Your task to perform on an android device: Open ESPN.com Image 0: 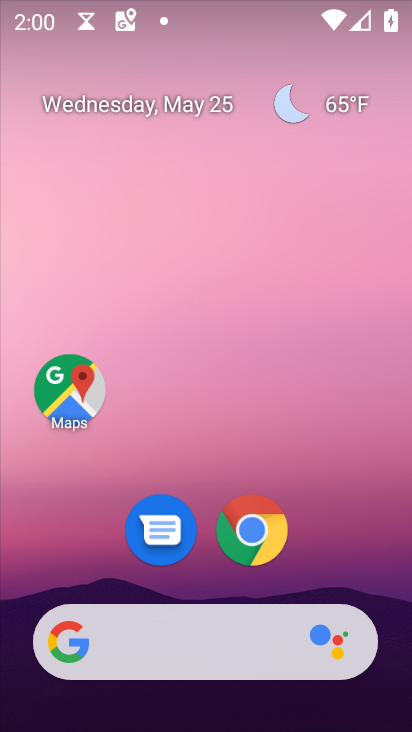
Step 0: click (242, 522)
Your task to perform on an android device: Open ESPN.com Image 1: 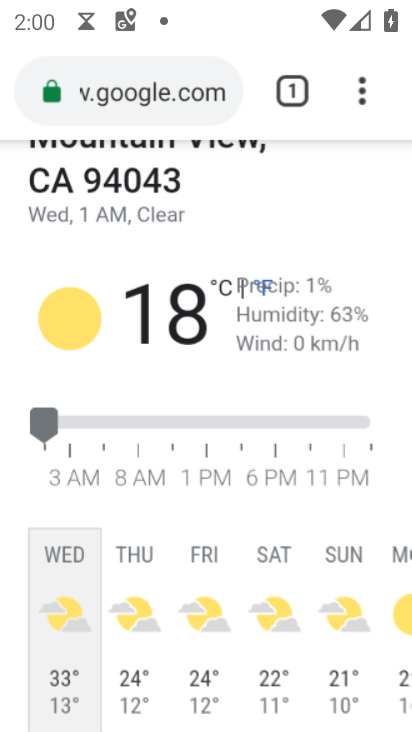
Step 1: click (383, 84)
Your task to perform on an android device: Open ESPN.com Image 2: 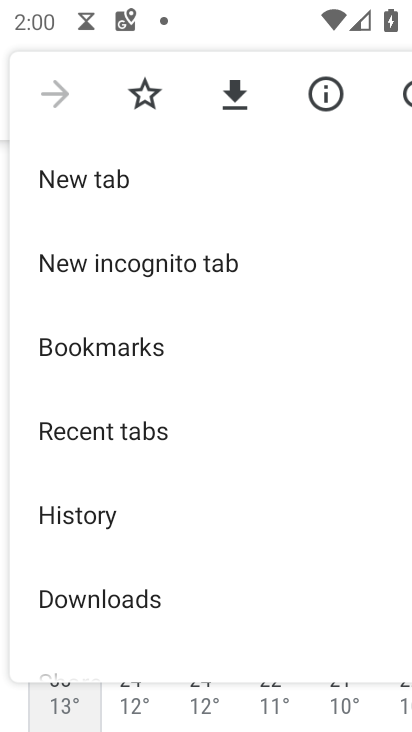
Step 2: click (134, 189)
Your task to perform on an android device: Open ESPN.com Image 3: 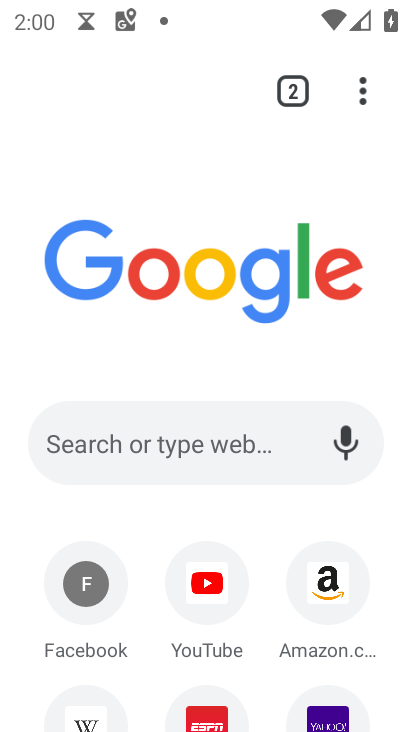
Step 3: click (201, 706)
Your task to perform on an android device: Open ESPN.com Image 4: 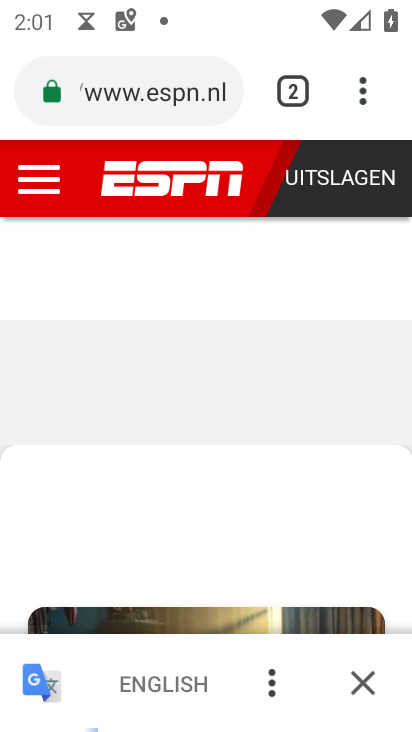
Step 4: click (170, 682)
Your task to perform on an android device: Open ESPN.com Image 5: 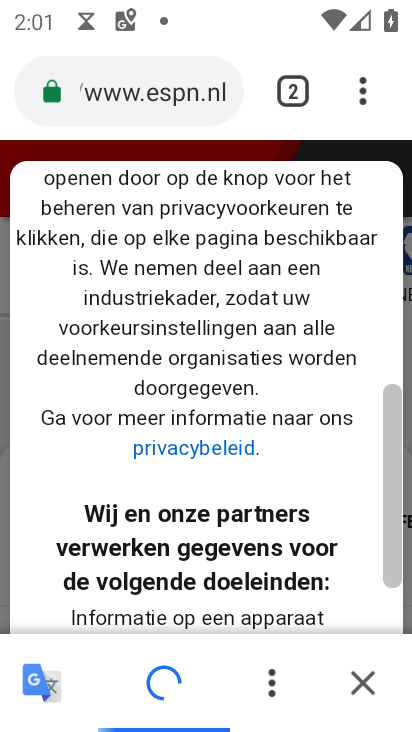
Step 5: click (333, 689)
Your task to perform on an android device: Open ESPN.com Image 6: 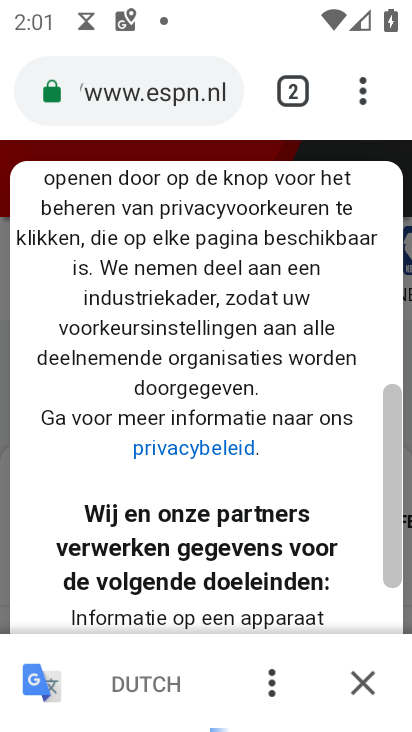
Step 6: task complete